Your task to perform on an android device: Go to location settings Image 0: 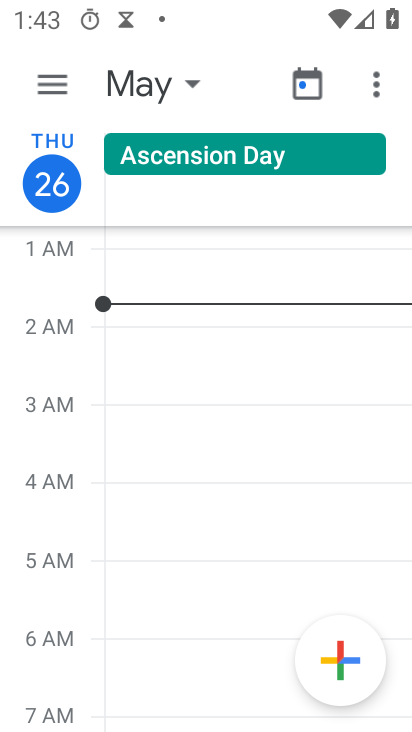
Step 0: press home button
Your task to perform on an android device: Go to location settings Image 1: 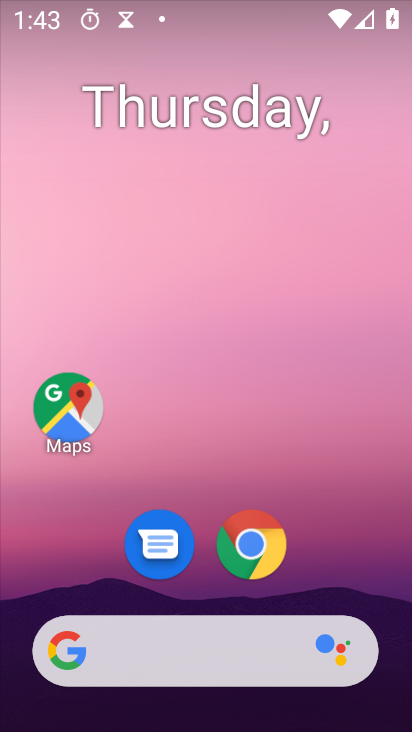
Step 1: drag from (223, 679) to (223, 60)
Your task to perform on an android device: Go to location settings Image 2: 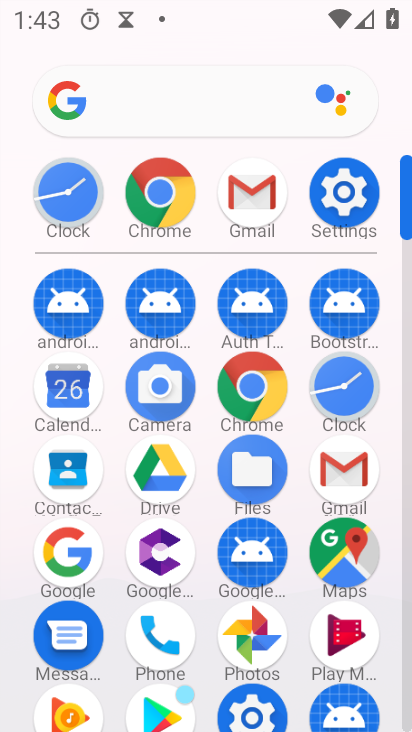
Step 2: click (353, 187)
Your task to perform on an android device: Go to location settings Image 3: 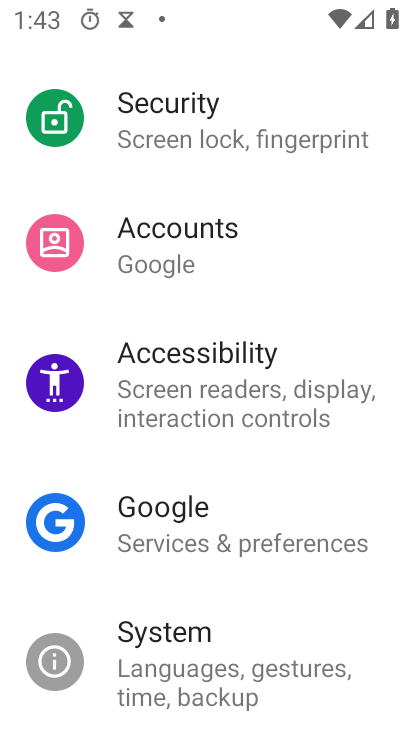
Step 3: drag from (220, 183) to (221, 624)
Your task to perform on an android device: Go to location settings Image 4: 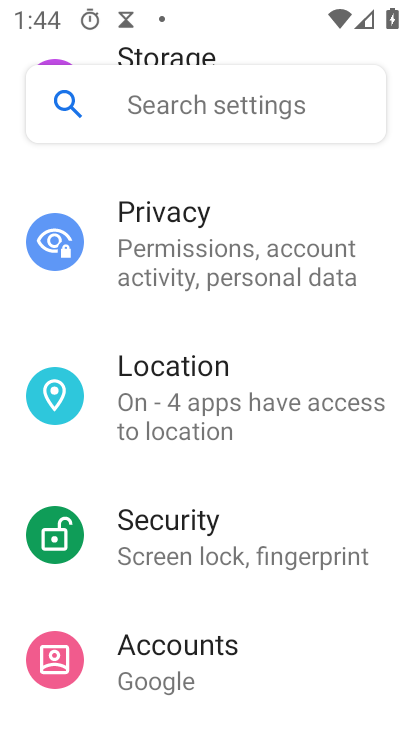
Step 4: click (171, 398)
Your task to perform on an android device: Go to location settings Image 5: 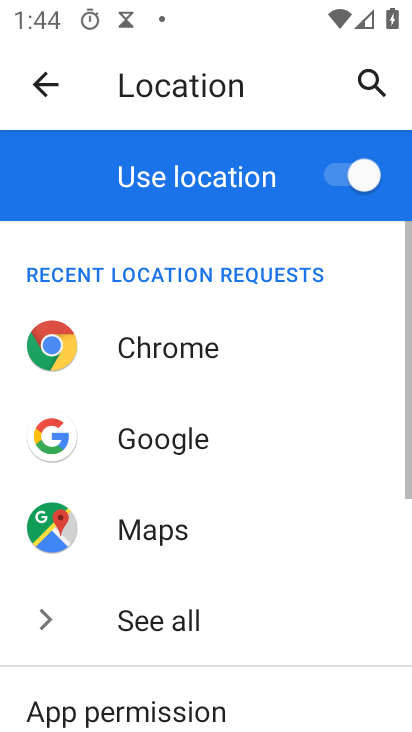
Step 5: task complete